Your task to perform on an android device: move a message to another label in the gmail app Image 0: 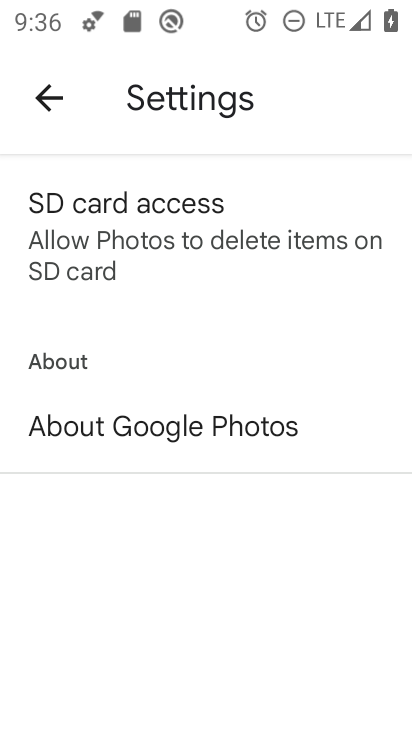
Step 0: press home button
Your task to perform on an android device: move a message to another label in the gmail app Image 1: 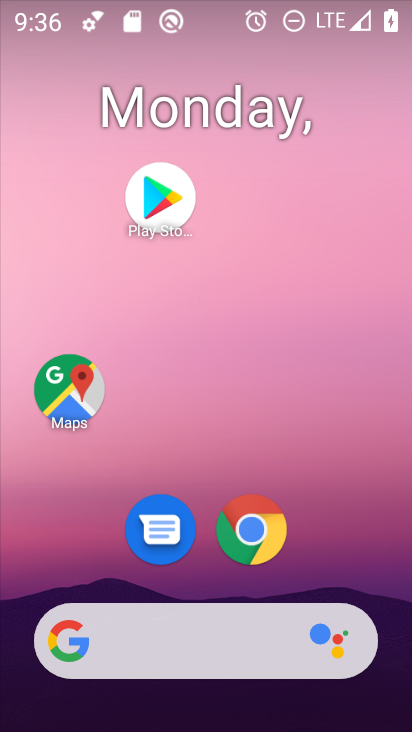
Step 1: drag from (276, 464) to (226, 86)
Your task to perform on an android device: move a message to another label in the gmail app Image 2: 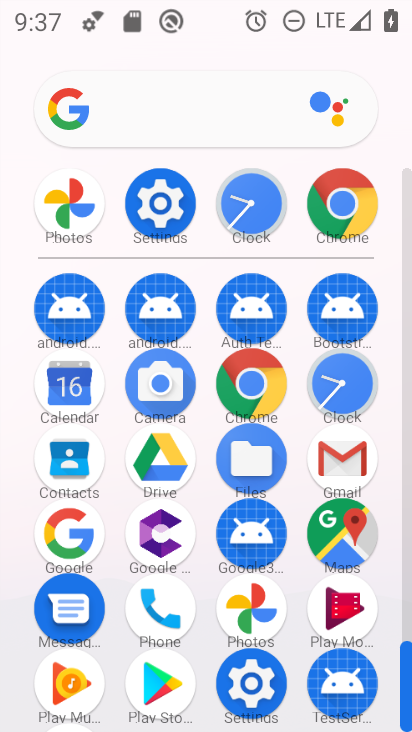
Step 2: click (338, 454)
Your task to perform on an android device: move a message to another label in the gmail app Image 3: 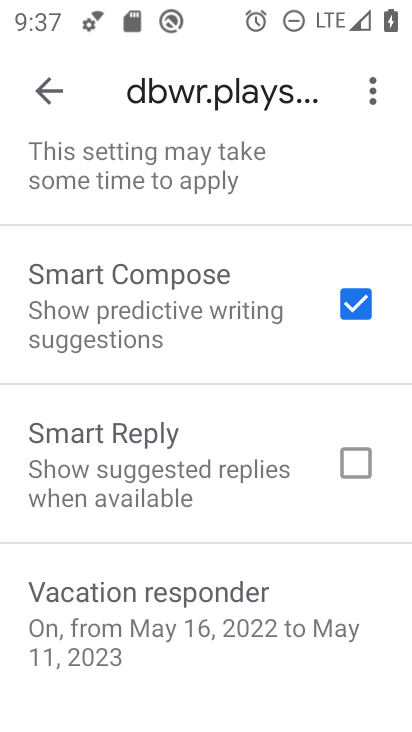
Step 3: click (45, 89)
Your task to perform on an android device: move a message to another label in the gmail app Image 4: 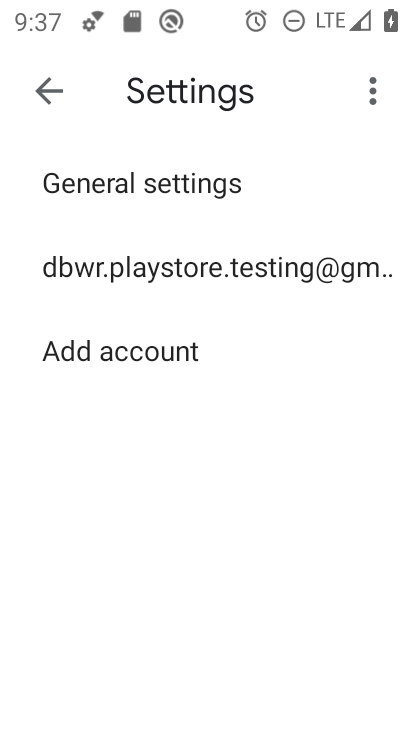
Step 4: click (47, 89)
Your task to perform on an android device: move a message to another label in the gmail app Image 5: 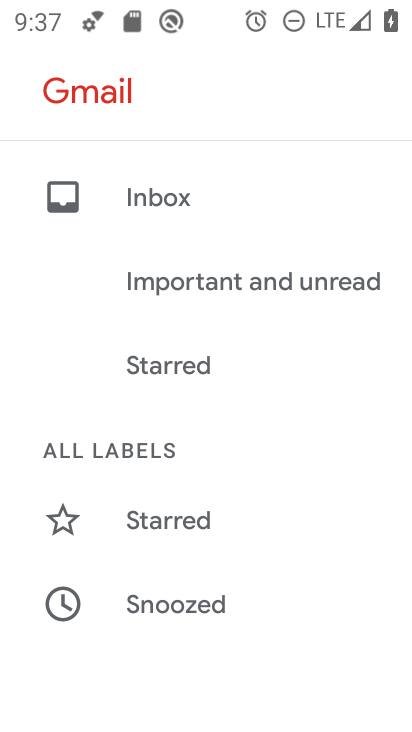
Step 5: drag from (224, 527) to (195, 277)
Your task to perform on an android device: move a message to another label in the gmail app Image 6: 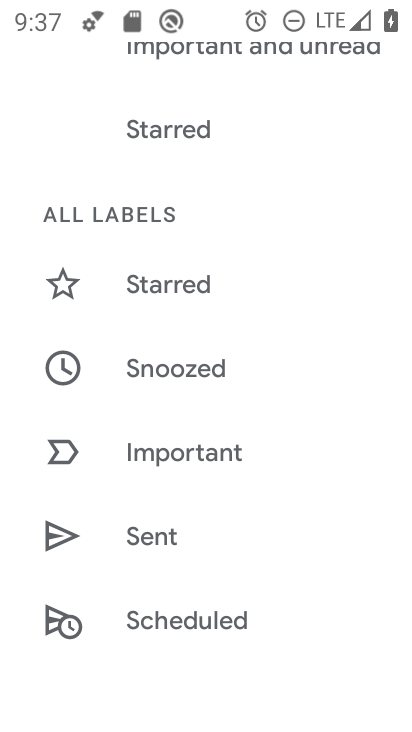
Step 6: drag from (251, 448) to (221, 154)
Your task to perform on an android device: move a message to another label in the gmail app Image 7: 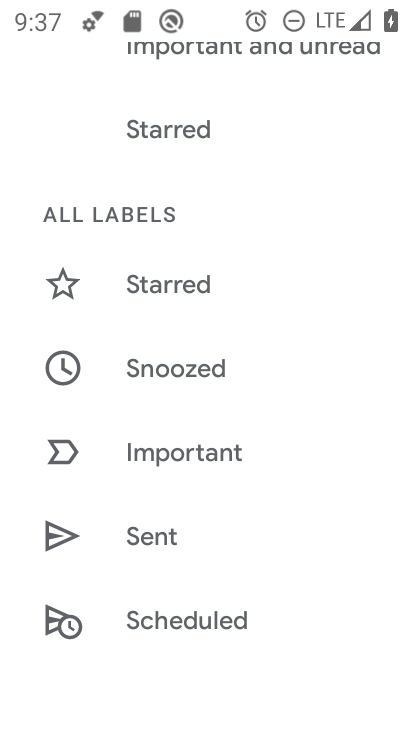
Step 7: drag from (226, 505) to (195, 171)
Your task to perform on an android device: move a message to another label in the gmail app Image 8: 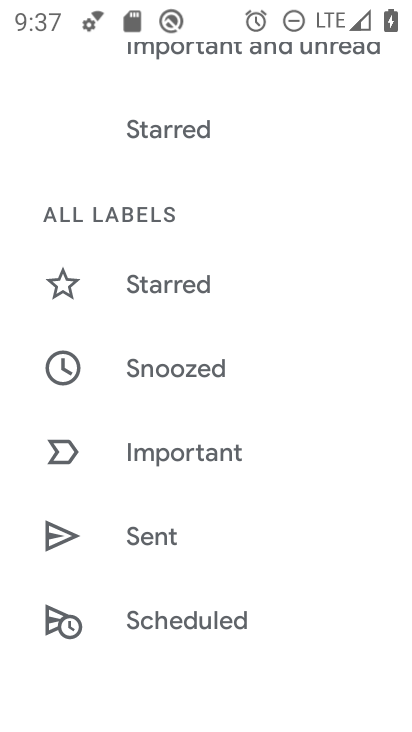
Step 8: drag from (271, 509) to (271, 144)
Your task to perform on an android device: move a message to another label in the gmail app Image 9: 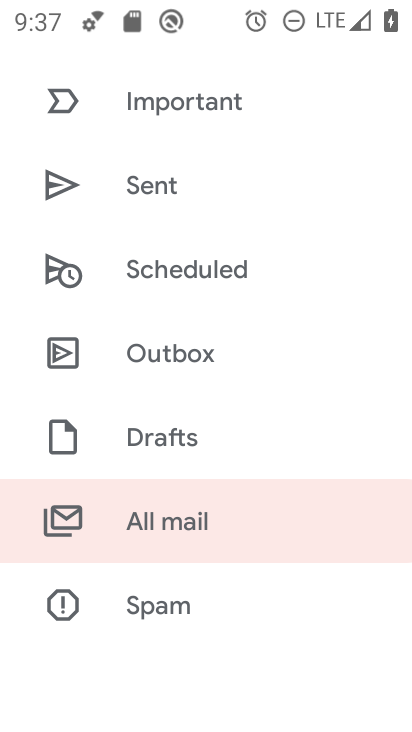
Step 9: click (184, 519)
Your task to perform on an android device: move a message to another label in the gmail app Image 10: 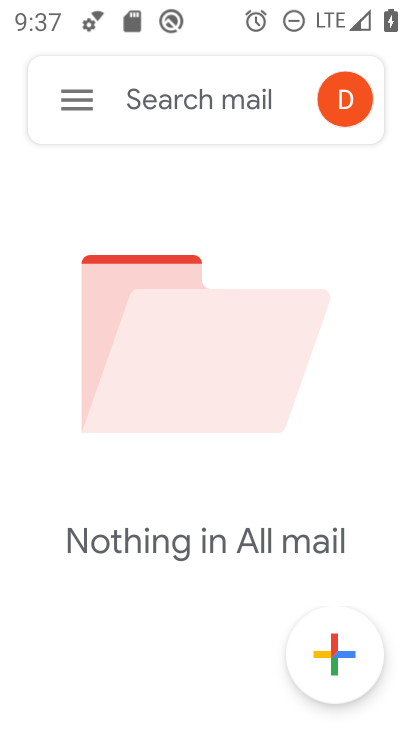
Step 10: task complete